Your task to perform on an android device: Open Youtube and go to the subscriptions tab Image 0: 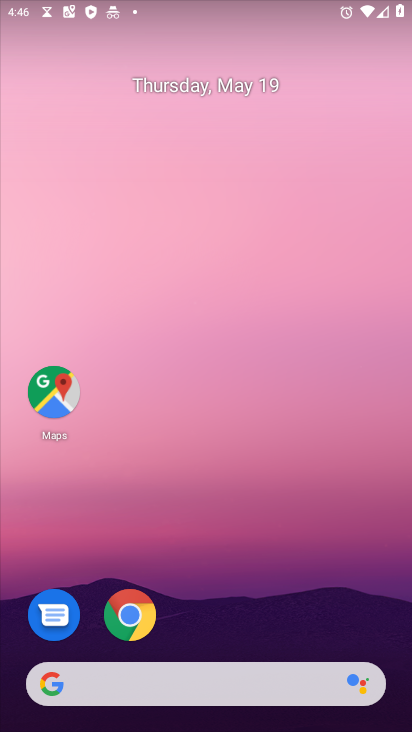
Step 0: drag from (408, 691) to (85, 11)
Your task to perform on an android device: Open Youtube and go to the subscriptions tab Image 1: 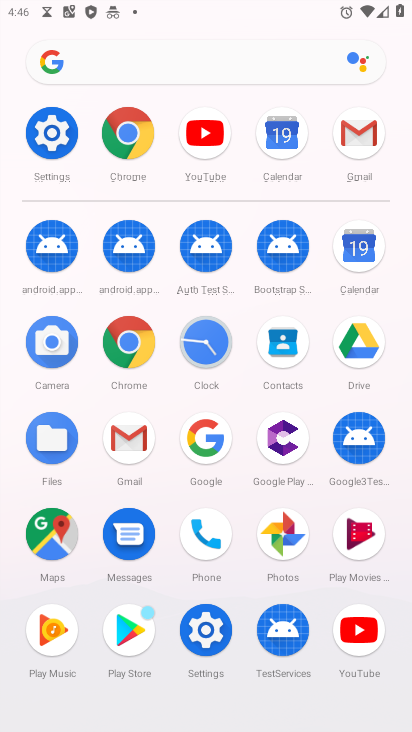
Step 1: click (354, 632)
Your task to perform on an android device: Open Youtube and go to the subscriptions tab Image 2: 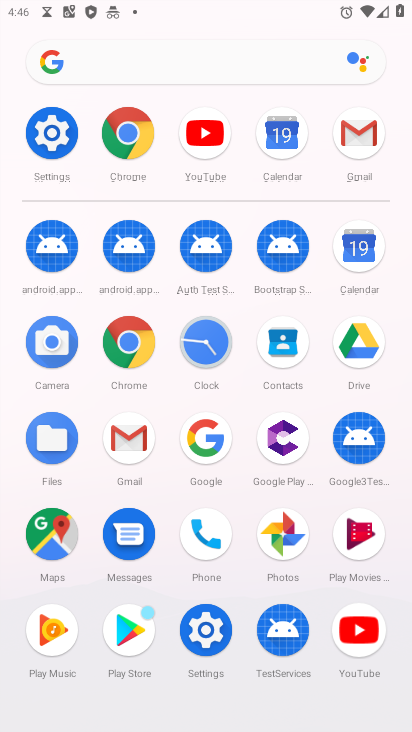
Step 2: click (354, 632)
Your task to perform on an android device: Open Youtube and go to the subscriptions tab Image 3: 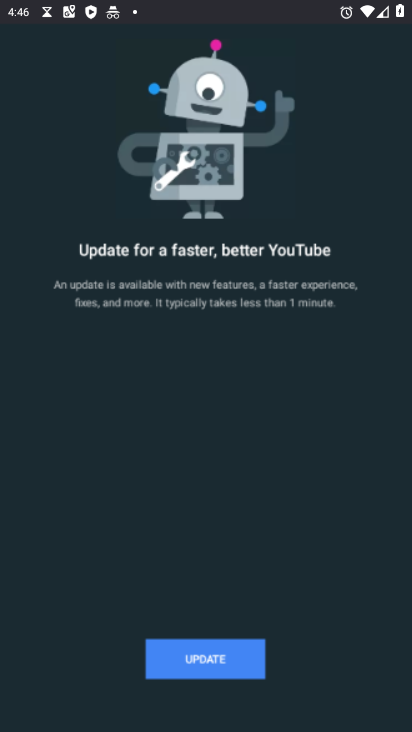
Step 3: click (355, 633)
Your task to perform on an android device: Open Youtube and go to the subscriptions tab Image 4: 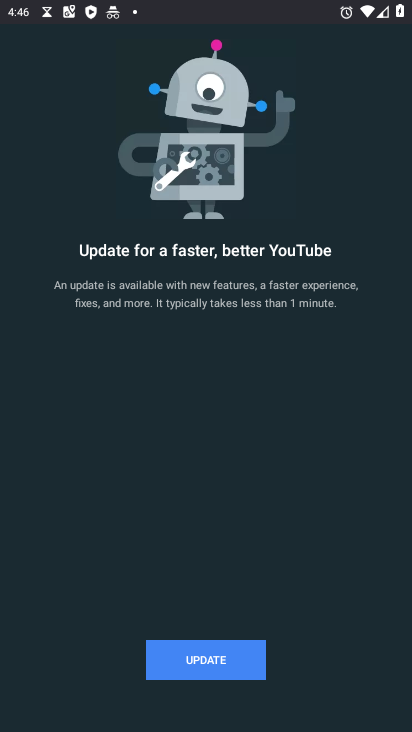
Step 4: click (212, 663)
Your task to perform on an android device: Open Youtube and go to the subscriptions tab Image 5: 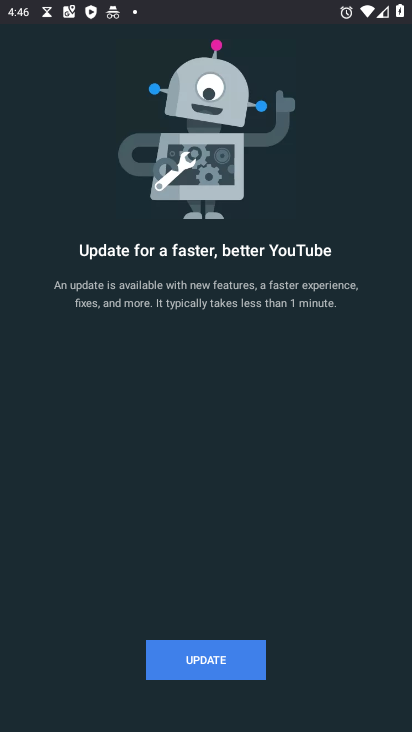
Step 5: click (212, 663)
Your task to perform on an android device: Open Youtube and go to the subscriptions tab Image 6: 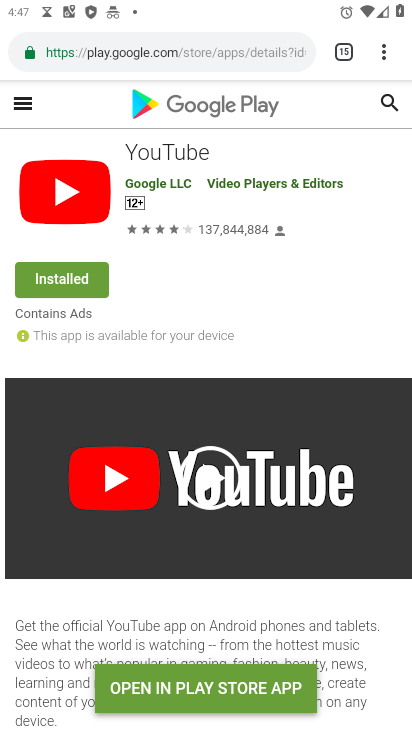
Step 6: drag from (277, 486) to (69, 18)
Your task to perform on an android device: Open Youtube and go to the subscriptions tab Image 7: 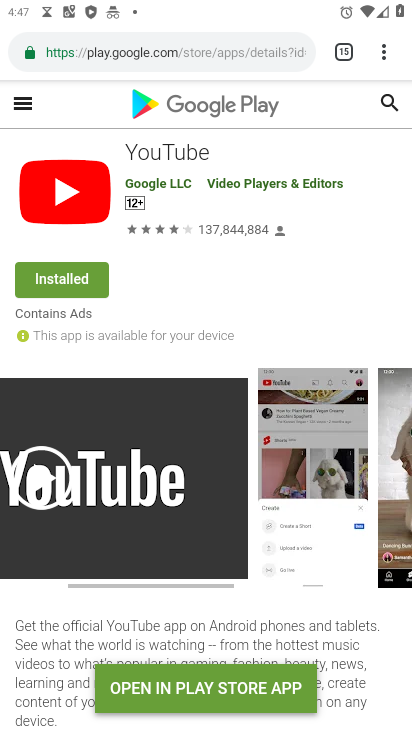
Step 7: drag from (169, 495) to (169, 83)
Your task to perform on an android device: Open Youtube and go to the subscriptions tab Image 8: 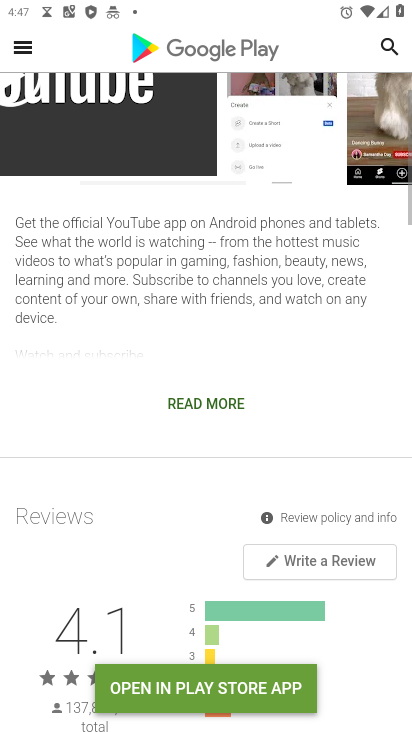
Step 8: drag from (226, 484) to (208, 270)
Your task to perform on an android device: Open Youtube and go to the subscriptions tab Image 9: 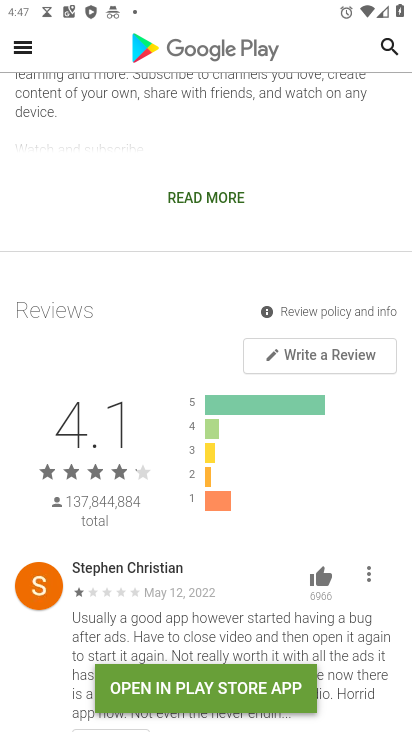
Step 9: click (205, 672)
Your task to perform on an android device: Open Youtube and go to the subscriptions tab Image 10: 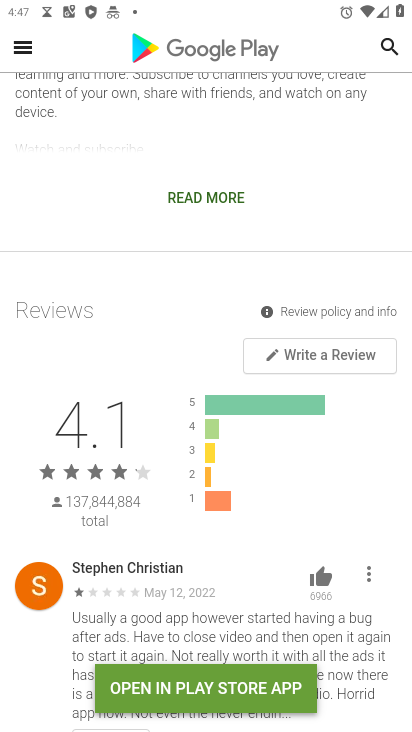
Step 10: click (205, 672)
Your task to perform on an android device: Open Youtube and go to the subscriptions tab Image 11: 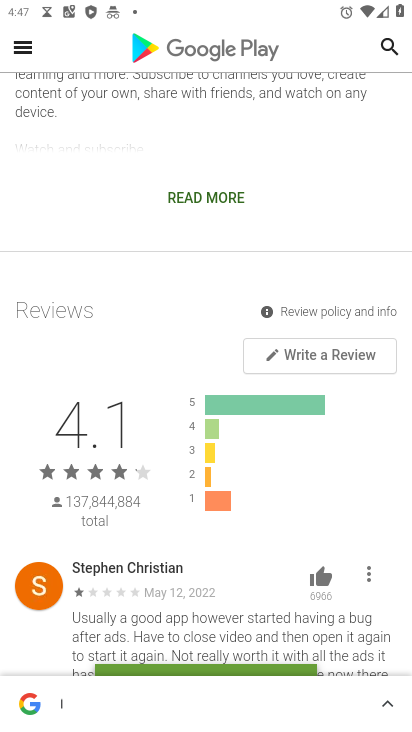
Step 11: click (205, 672)
Your task to perform on an android device: Open Youtube and go to the subscriptions tab Image 12: 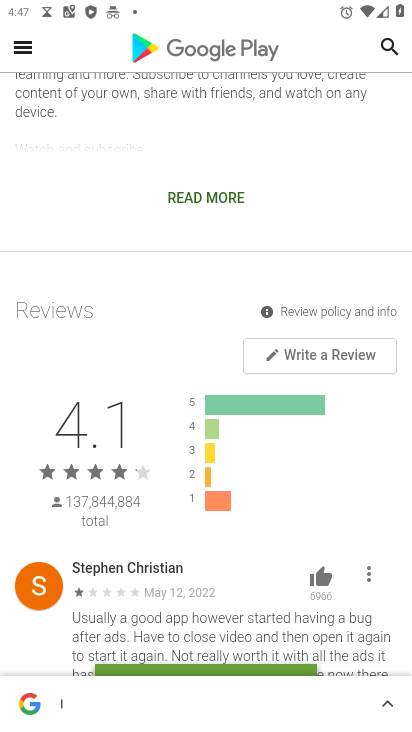
Step 12: task complete